Your task to perform on an android device: Set the phone to "Do not disturb". Image 0: 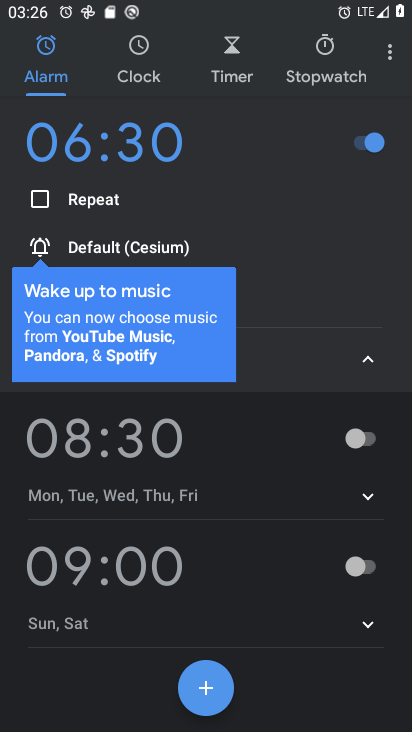
Step 0: press home button
Your task to perform on an android device: Set the phone to "Do not disturb". Image 1: 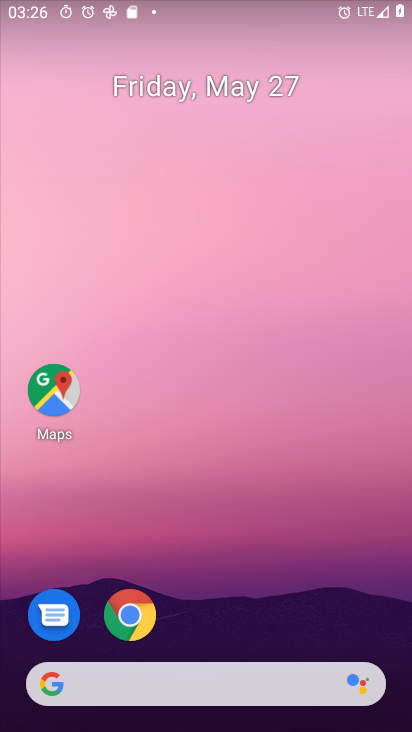
Step 1: drag from (384, 628) to (379, 204)
Your task to perform on an android device: Set the phone to "Do not disturb". Image 2: 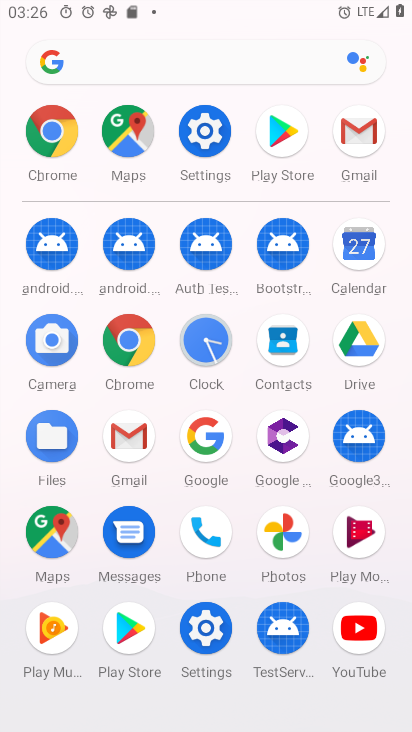
Step 2: click (201, 633)
Your task to perform on an android device: Set the phone to "Do not disturb". Image 3: 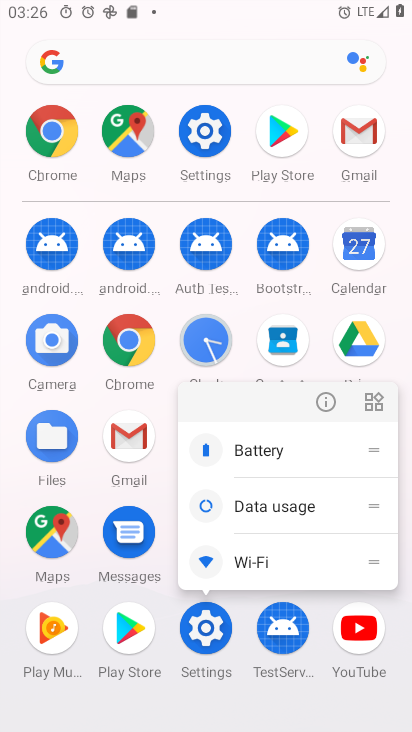
Step 3: click (201, 633)
Your task to perform on an android device: Set the phone to "Do not disturb". Image 4: 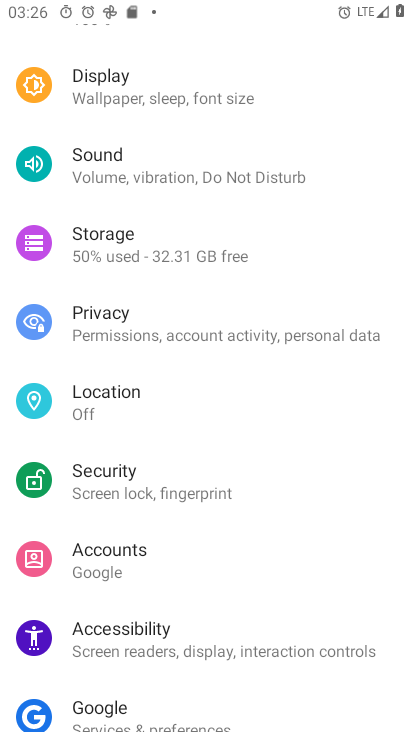
Step 4: drag from (320, 591) to (324, 408)
Your task to perform on an android device: Set the phone to "Do not disturb". Image 5: 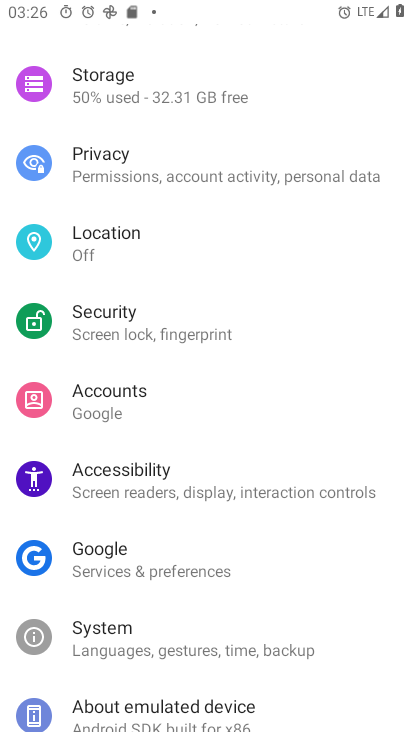
Step 5: drag from (346, 522) to (351, 579)
Your task to perform on an android device: Set the phone to "Do not disturb". Image 6: 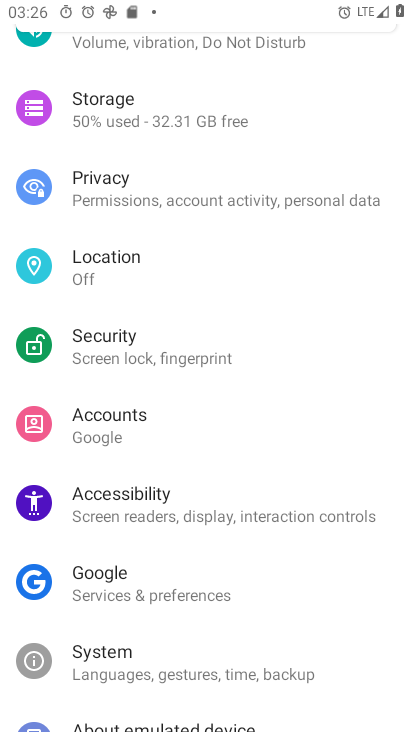
Step 6: drag from (321, 426) to (316, 545)
Your task to perform on an android device: Set the phone to "Do not disturb". Image 7: 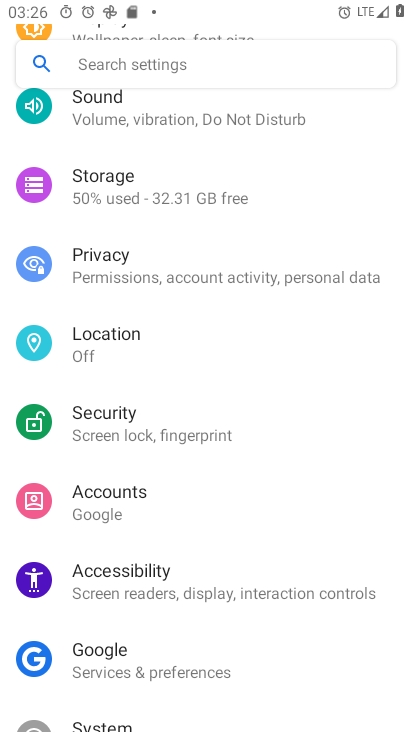
Step 7: drag from (322, 415) to (319, 579)
Your task to perform on an android device: Set the phone to "Do not disturb". Image 8: 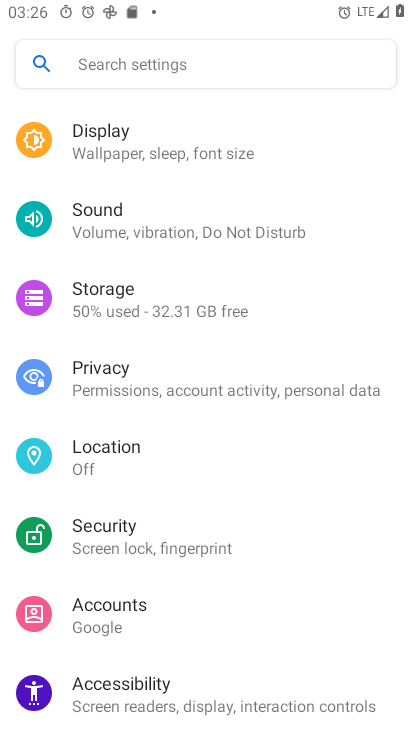
Step 8: drag from (344, 256) to (347, 363)
Your task to perform on an android device: Set the phone to "Do not disturb". Image 9: 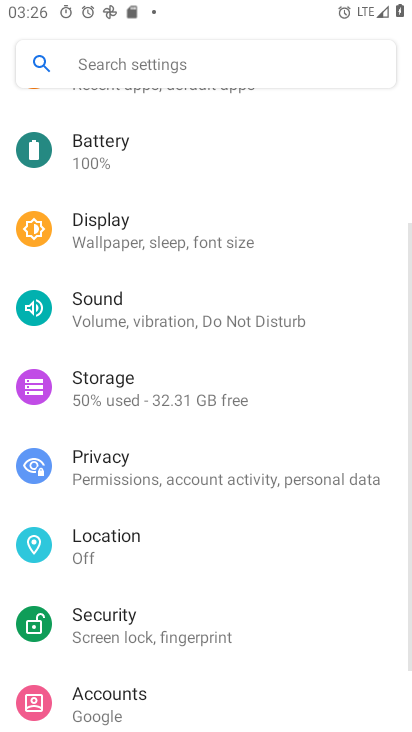
Step 9: drag from (341, 291) to (343, 353)
Your task to perform on an android device: Set the phone to "Do not disturb". Image 10: 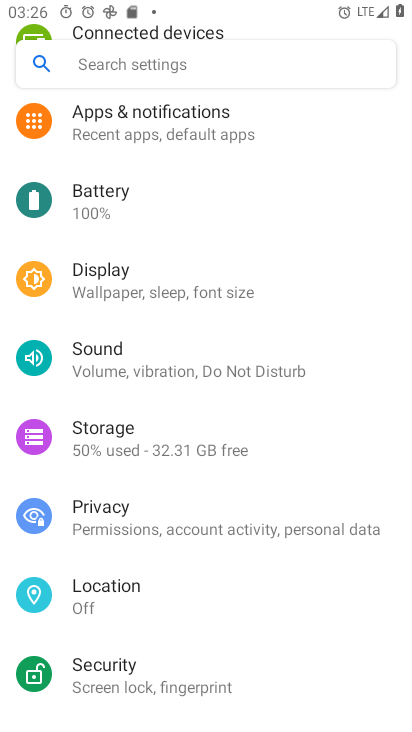
Step 10: click (301, 361)
Your task to perform on an android device: Set the phone to "Do not disturb". Image 11: 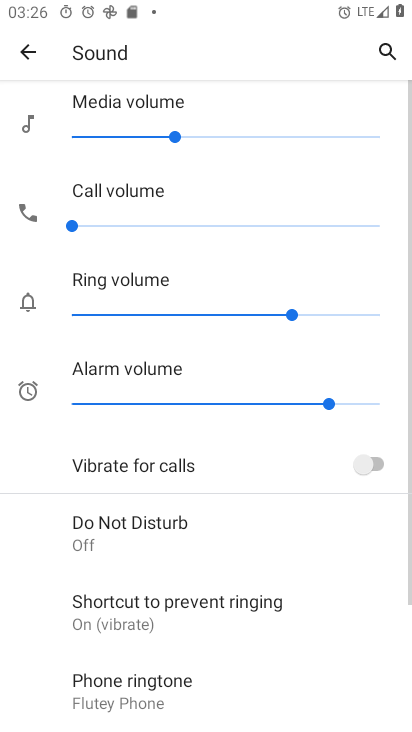
Step 11: drag from (293, 477) to (289, 362)
Your task to perform on an android device: Set the phone to "Do not disturb". Image 12: 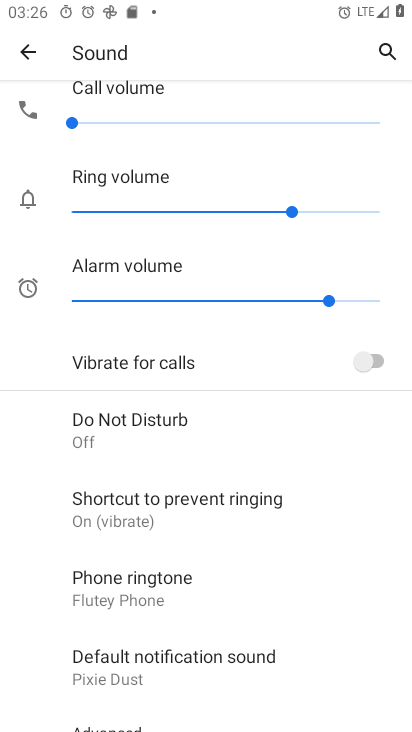
Step 12: click (191, 448)
Your task to perform on an android device: Set the phone to "Do not disturb". Image 13: 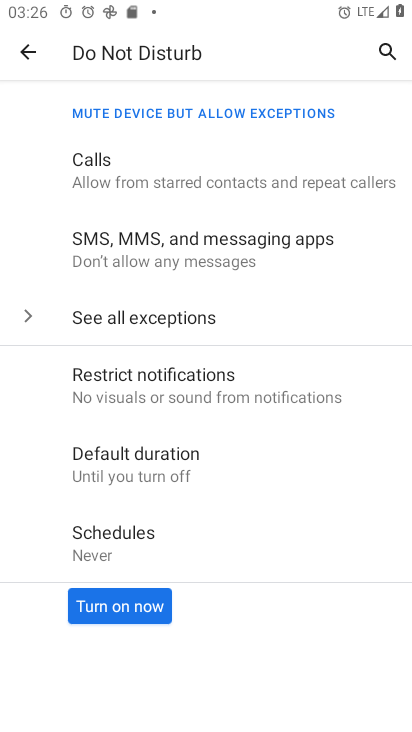
Step 13: click (145, 610)
Your task to perform on an android device: Set the phone to "Do not disturb". Image 14: 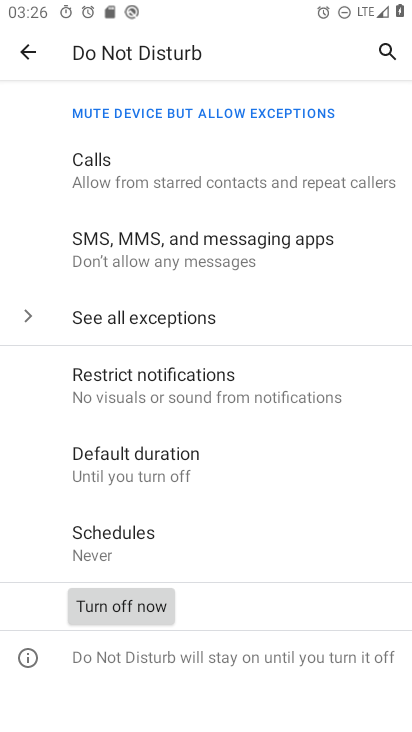
Step 14: task complete